Your task to perform on an android device: toggle javascript in the chrome app Image 0: 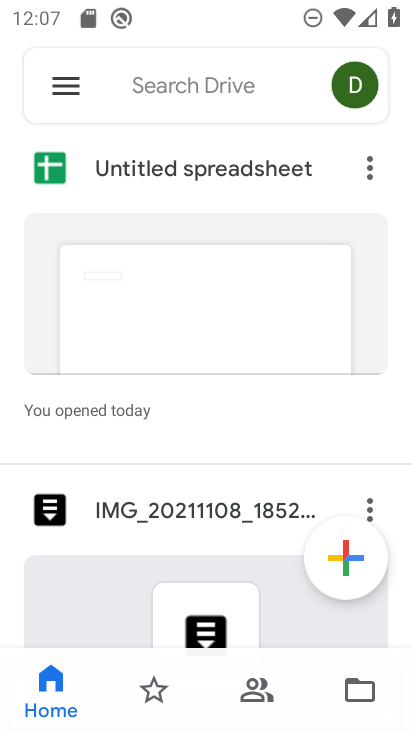
Step 0: press home button
Your task to perform on an android device: toggle javascript in the chrome app Image 1: 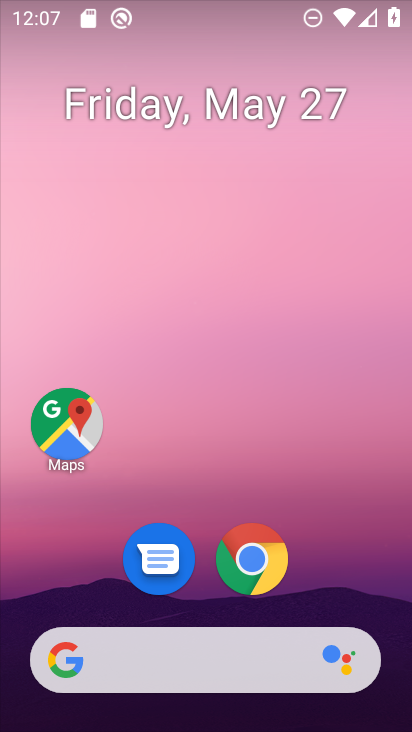
Step 1: click (244, 550)
Your task to perform on an android device: toggle javascript in the chrome app Image 2: 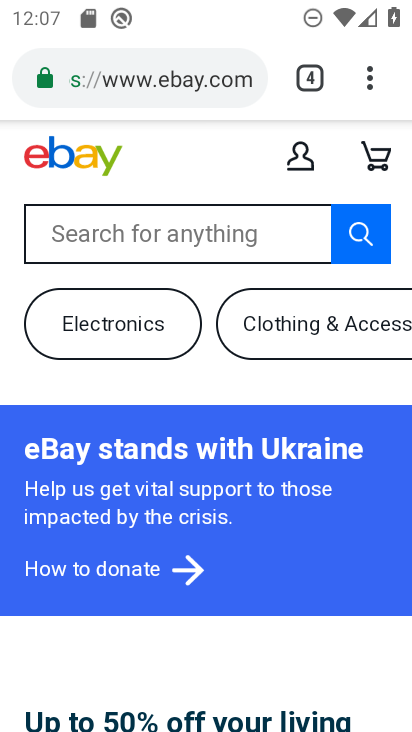
Step 2: click (370, 78)
Your task to perform on an android device: toggle javascript in the chrome app Image 3: 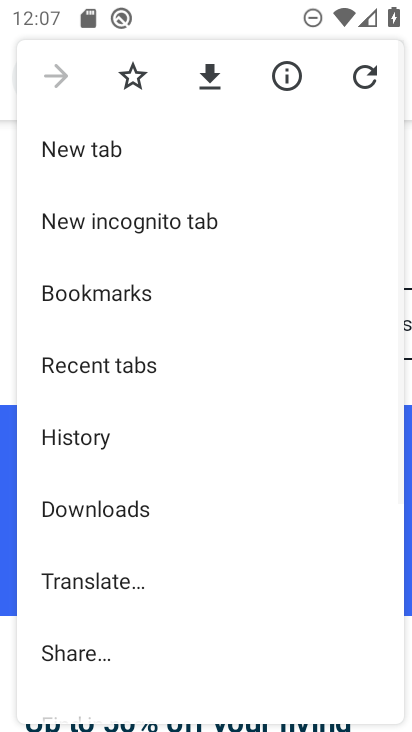
Step 3: drag from (219, 577) to (256, 184)
Your task to perform on an android device: toggle javascript in the chrome app Image 4: 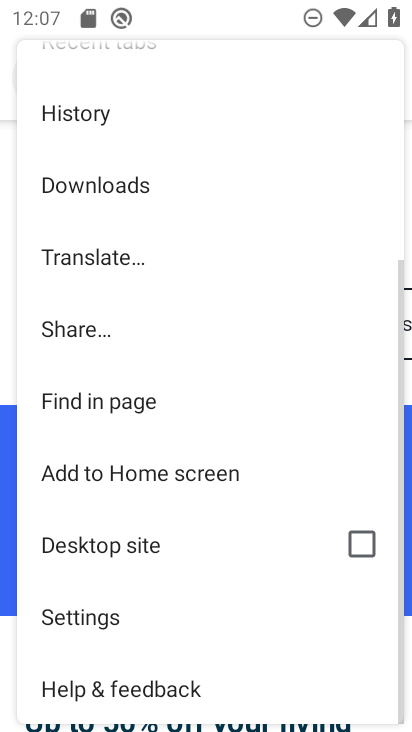
Step 4: click (92, 609)
Your task to perform on an android device: toggle javascript in the chrome app Image 5: 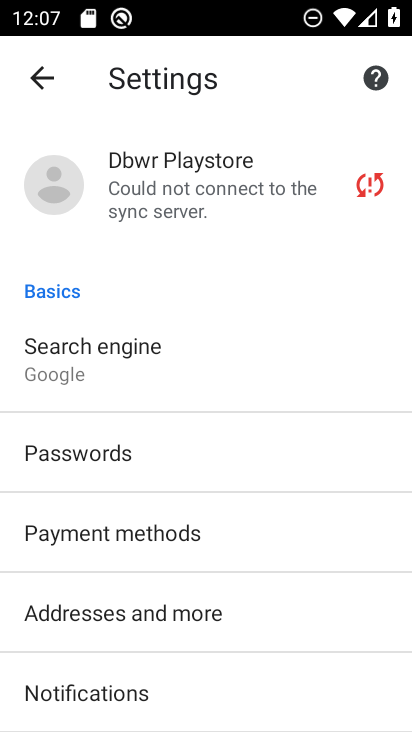
Step 5: drag from (182, 574) to (244, 180)
Your task to perform on an android device: toggle javascript in the chrome app Image 6: 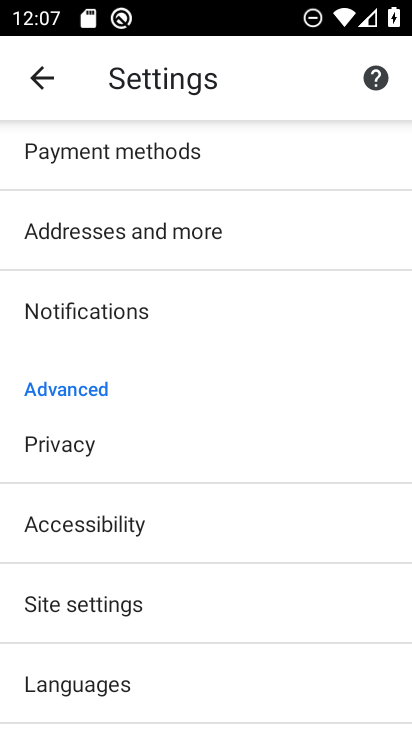
Step 6: click (116, 607)
Your task to perform on an android device: toggle javascript in the chrome app Image 7: 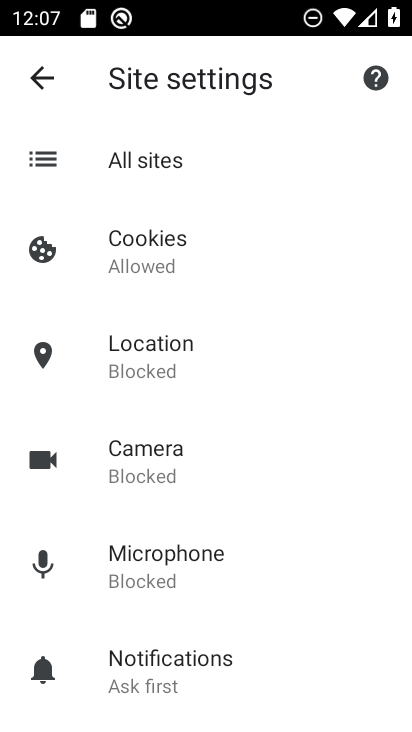
Step 7: drag from (234, 599) to (294, 144)
Your task to perform on an android device: toggle javascript in the chrome app Image 8: 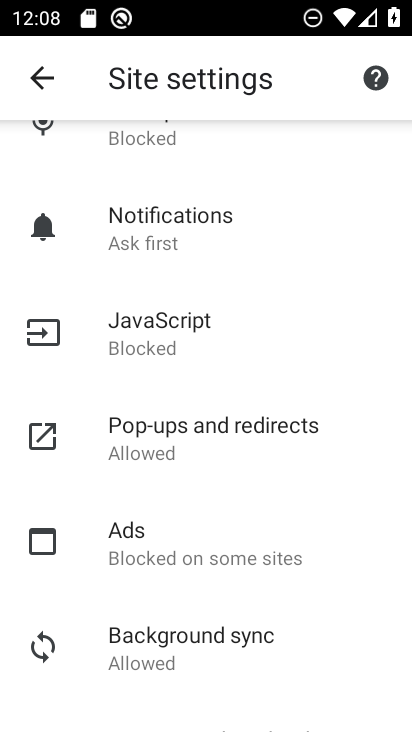
Step 8: click (209, 320)
Your task to perform on an android device: toggle javascript in the chrome app Image 9: 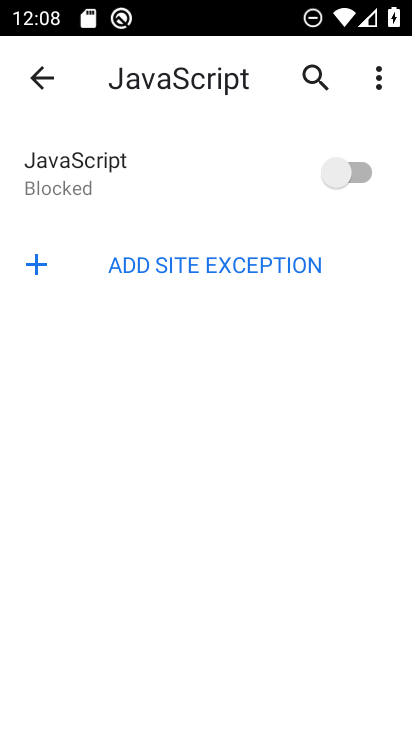
Step 9: click (338, 165)
Your task to perform on an android device: toggle javascript in the chrome app Image 10: 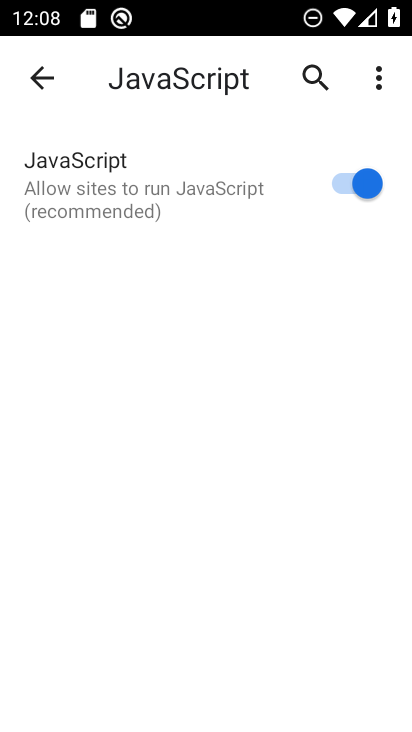
Step 10: task complete